Your task to perform on an android device: Open my contact list Image 0: 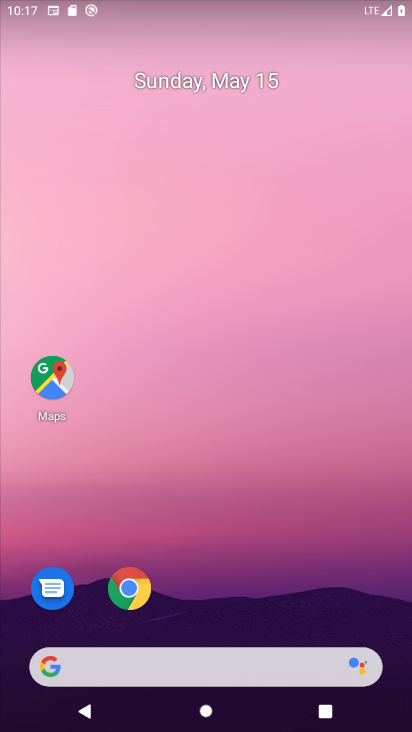
Step 0: drag from (241, 624) to (131, 249)
Your task to perform on an android device: Open my contact list Image 1: 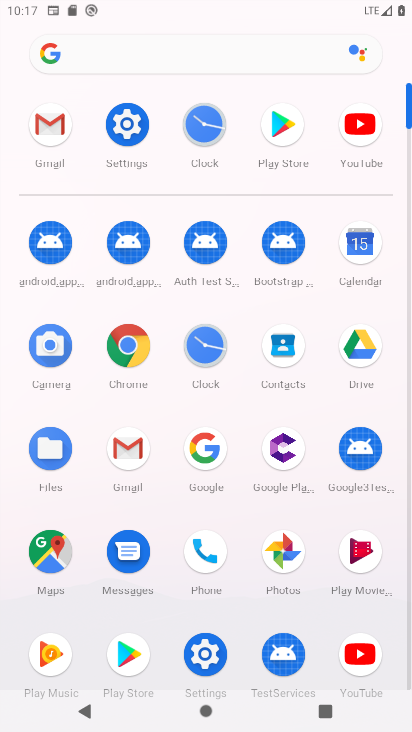
Step 1: click (281, 342)
Your task to perform on an android device: Open my contact list Image 2: 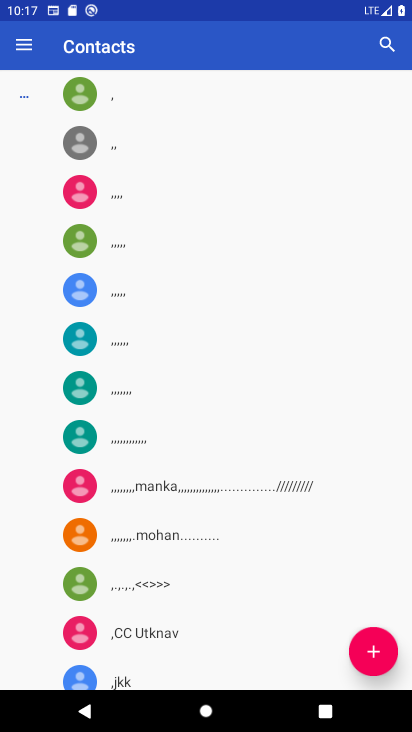
Step 2: task complete